Your task to perform on an android device: Go to display settings Image 0: 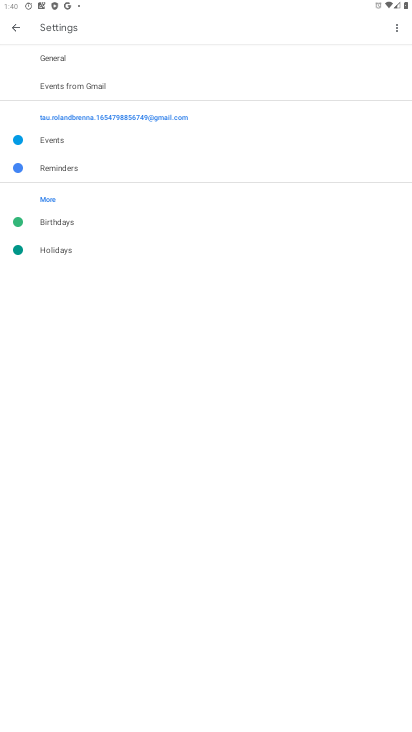
Step 0: press home button
Your task to perform on an android device: Go to display settings Image 1: 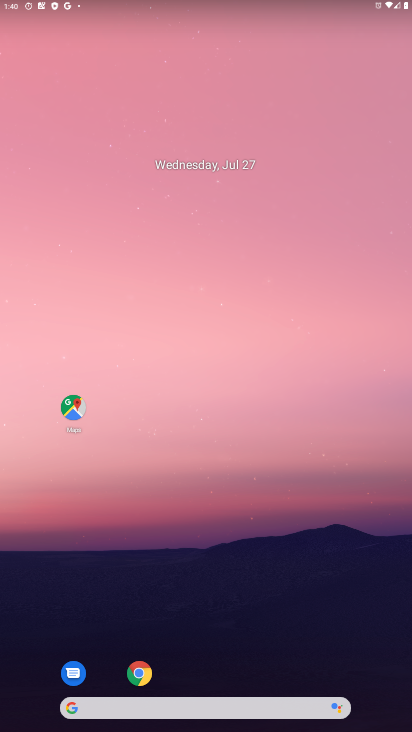
Step 1: drag from (226, 640) to (261, 84)
Your task to perform on an android device: Go to display settings Image 2: 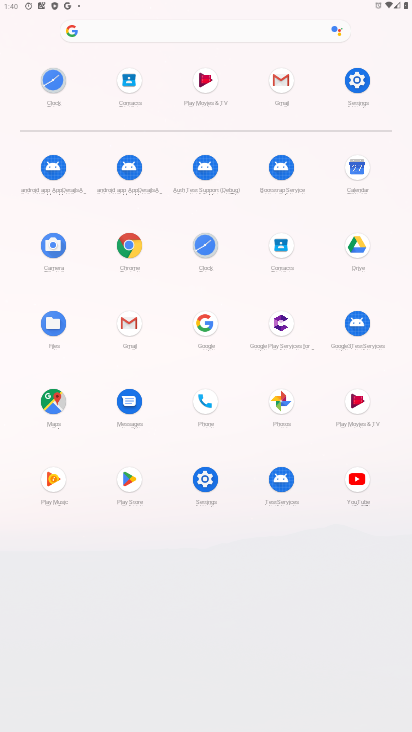
Step 2: click (352, 87)
Your task to perform on an android device: Go to display settings Image 3: 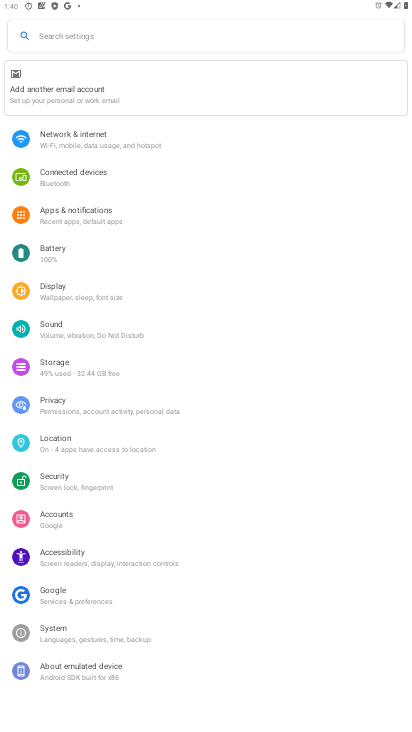
Step 3: click (49, 298)
Your task to perform on an android device: Go to display settings Image 4: 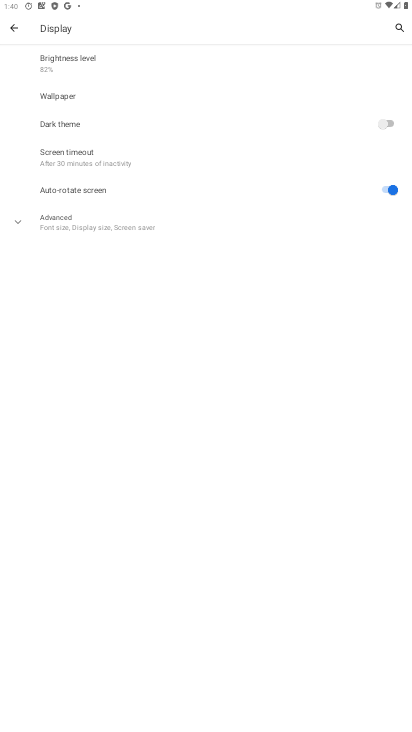
Step 4: task complete